Your task to perform on an android device: turn on translation in the chrome app Image 0: 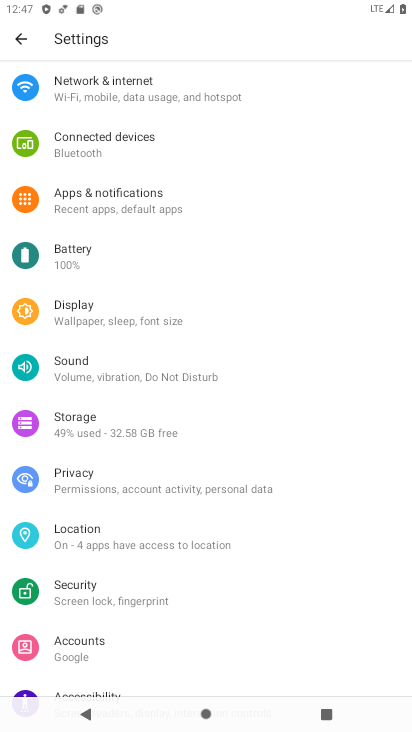
Step 0: press home button
Your task to perform on an android device: turn on translation in the chrome app Image 1: 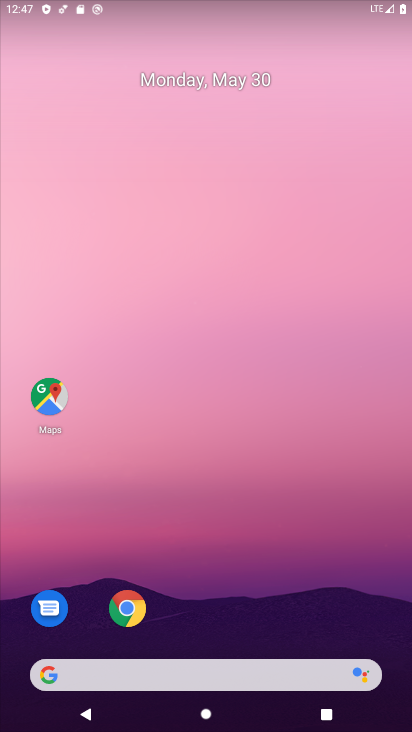
Step 1: click (145, 608)
Your task to perform on an android device: turn on translation in the chrome app Image 2: 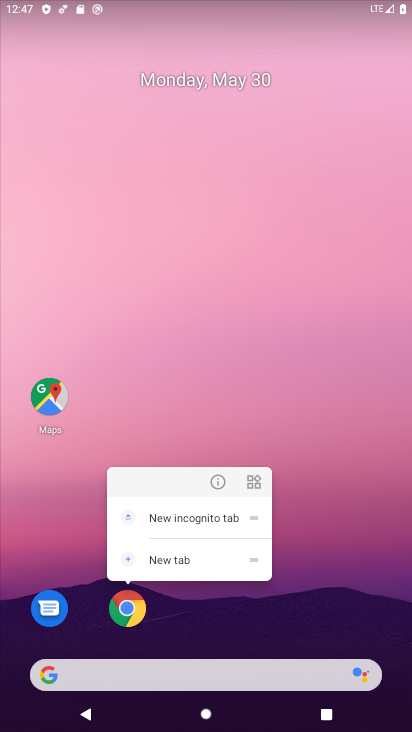
Step 2: click (136, 606)
Your task to perform on an android device: turn on translation in the chrome app Image 3: 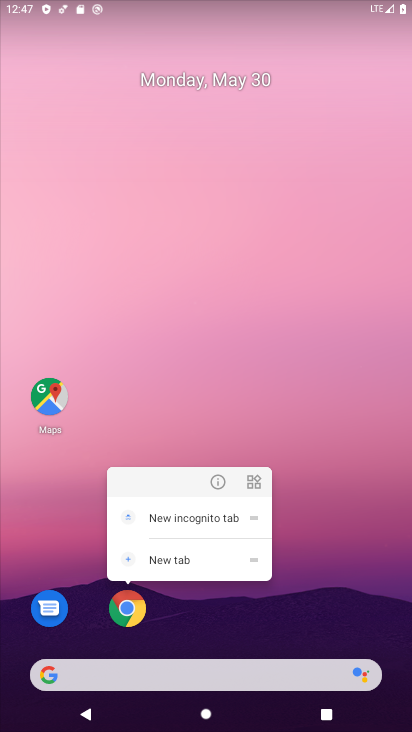
Step 3: click (135, 607)
Your task to perform on an android device: turn on translation in the chrome app Image 4: 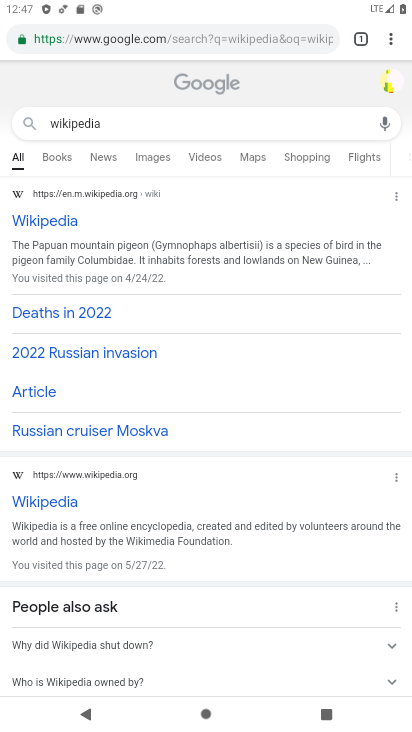
Step 4: click (388, 37)
Your task to perform on an android device: turn on translation in the chrome app Image 5: 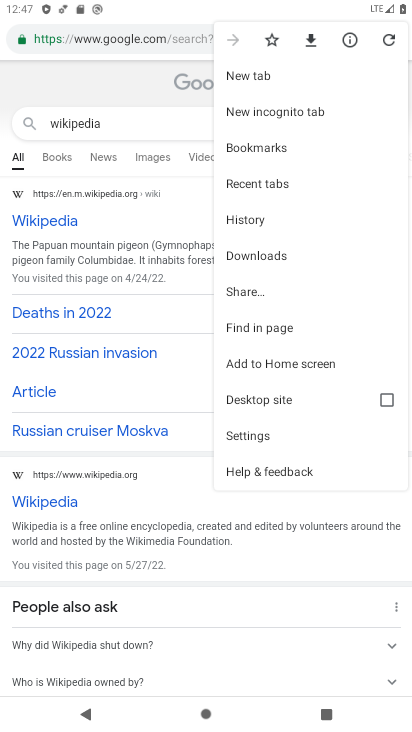
Step 5: click (256, 434)
Your task to perform on an android device: turn on translation in the chrome app Image 6: 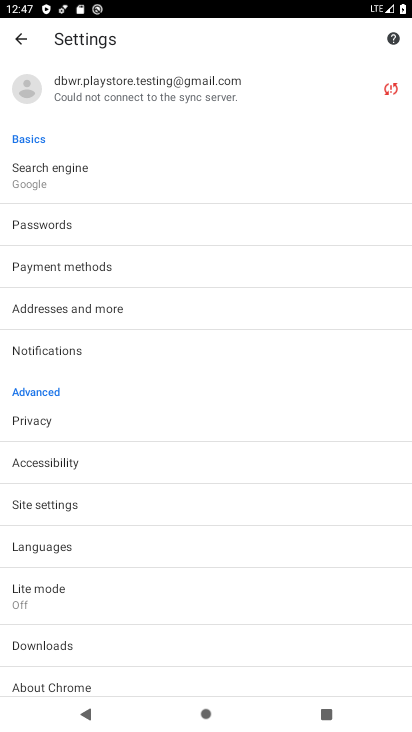
Step 6: click (72, 545)
Your task to perform on an android device: turn on translation in the chrome app Image 7: 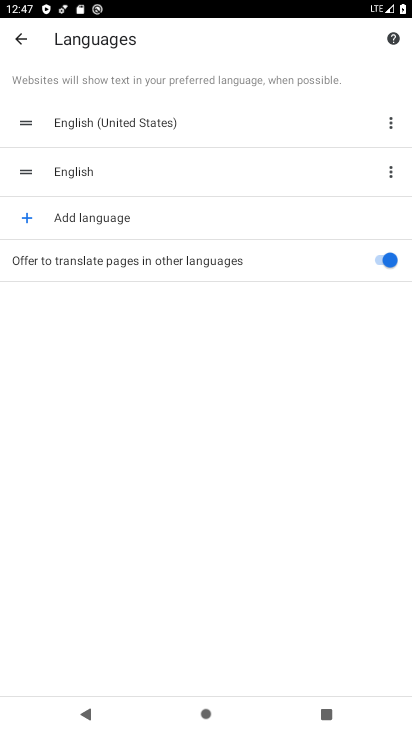
Step 7: task complete